Your task to perform on an android device: Open settings Image 0: 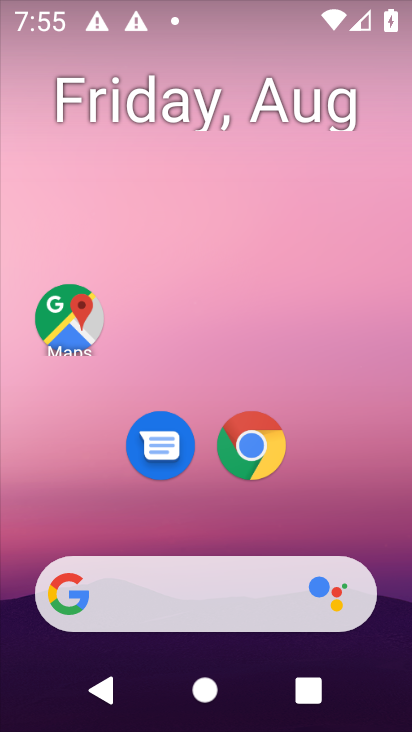
Step 0: drag from (191, 503) to (165, 133)
Your task to perform on an android device: Open settings Image 1: 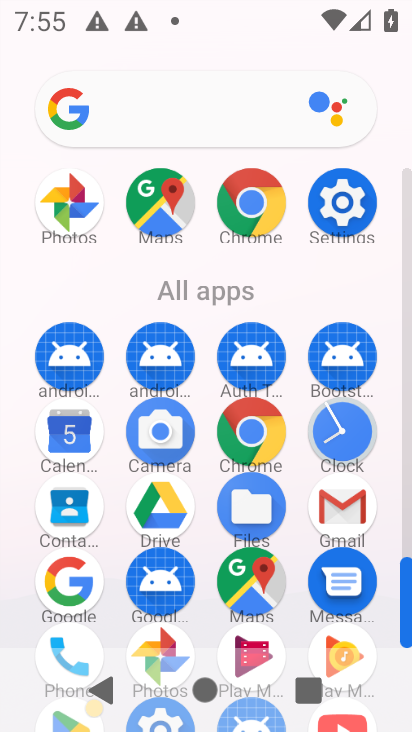
Step 1: click (360, 227)
Your task to perform on an android device: Open settings Image 2: 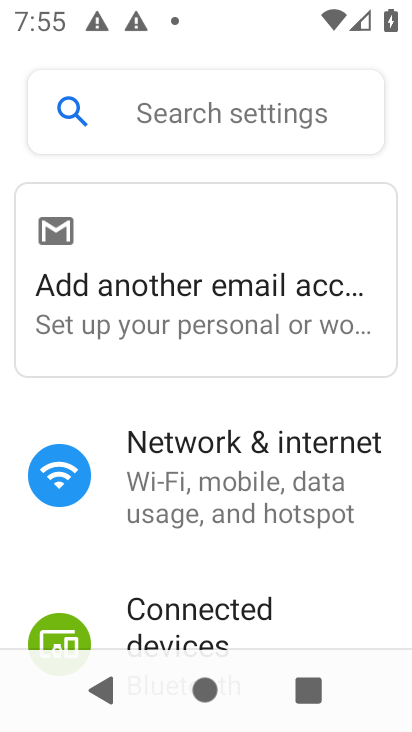
Step 2: task complete